Your task to perform on an android device: Open Android settings Image 0: 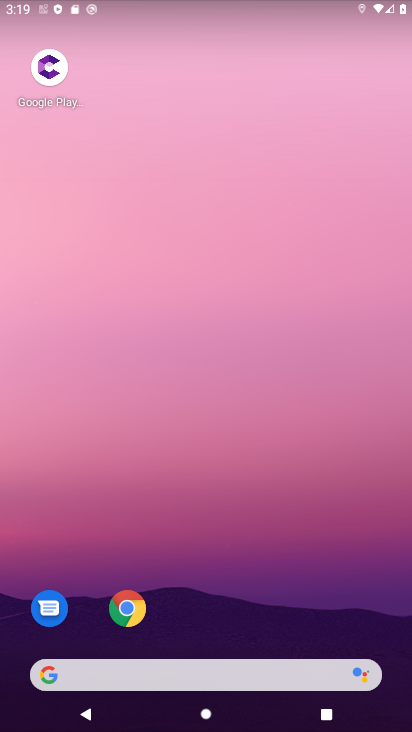
Step 0: drag from (214, 640) to (267, 119)
Your task to perform on an android device: Open Android settings Image 1: 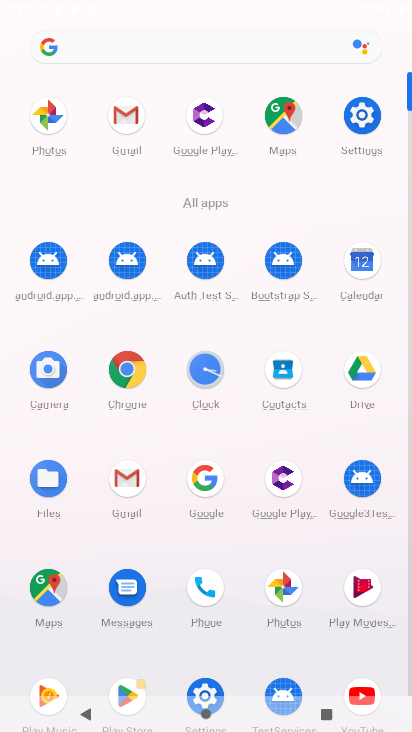
Step 1: click (207, 691)
Your task to perform on an android device: Open Android settings Image 2: 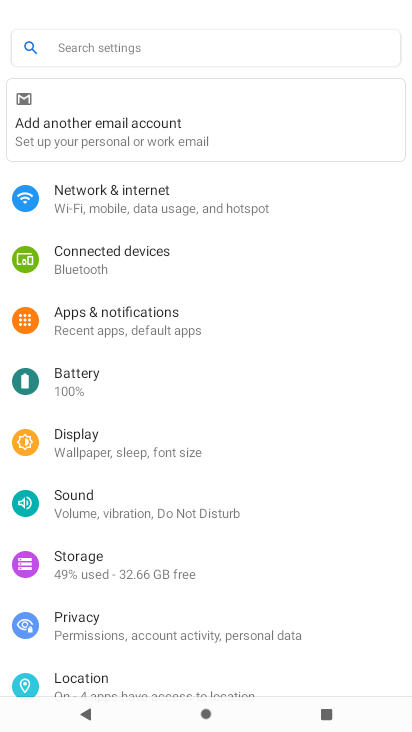
Step 2: task complete